Your task to perform on an android device: Open the calendar app, open the side menu, and click the "Day" option Image 0: 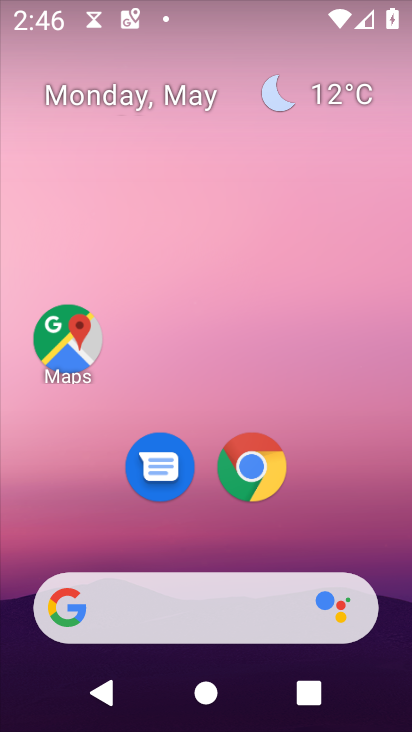
Step 0: drag from (385, 528) to (277, 163)
Your task to perform on an android device: Open the calendar app, open the side menu, and click the "Day" option Image 1: 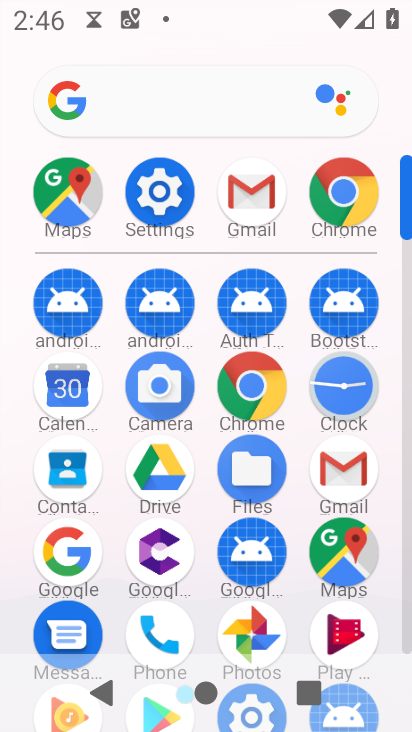
Step 1: click (49, 373)
Your task to perform on an android device: Open the calendar app, open the side menu, and click the "Day" option Image 2: 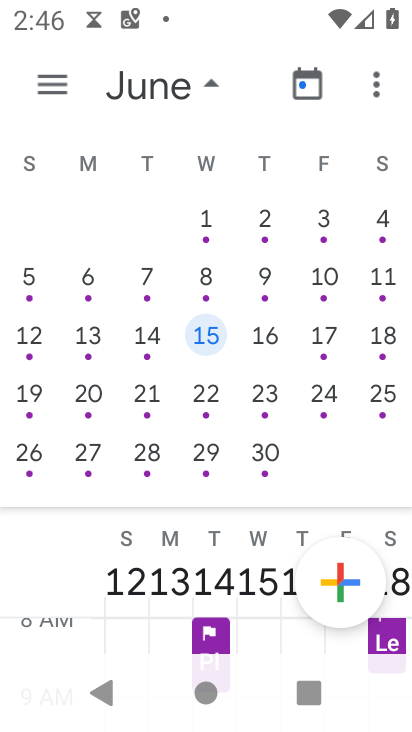
Step 2: click (54, 74)
Your task to perform on an android device: Open the calendar app, open the side menu, and click the "Day" option Image 3: 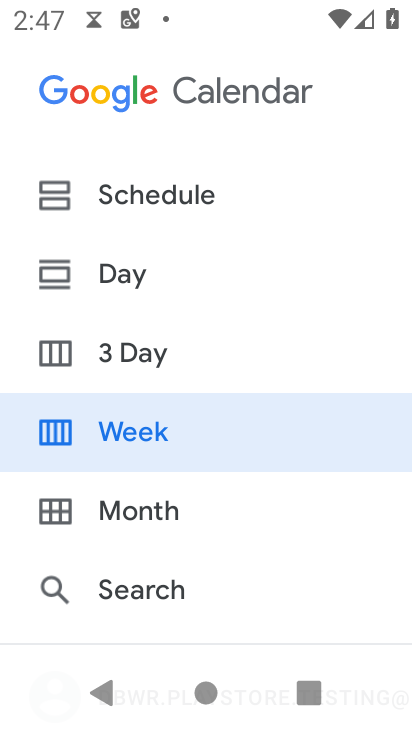
Step 3: click (150, 287)
Your task to perform on an android device: Open the calendar app, open the side menu, and click the "Day" option Image 4: 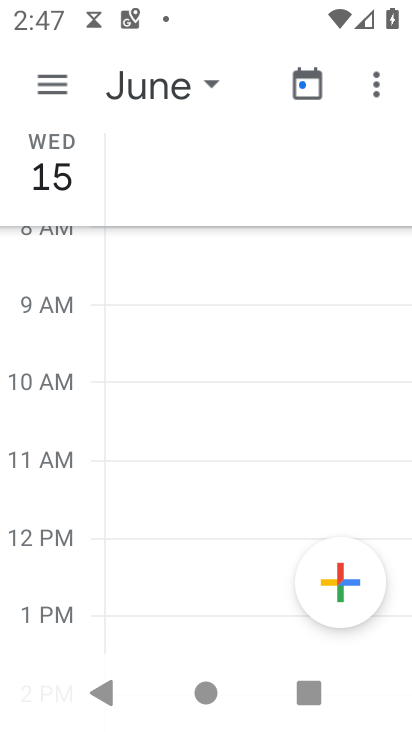
Step 4: task complete